Your task to perform on an android device: What's the weather? Image 0: 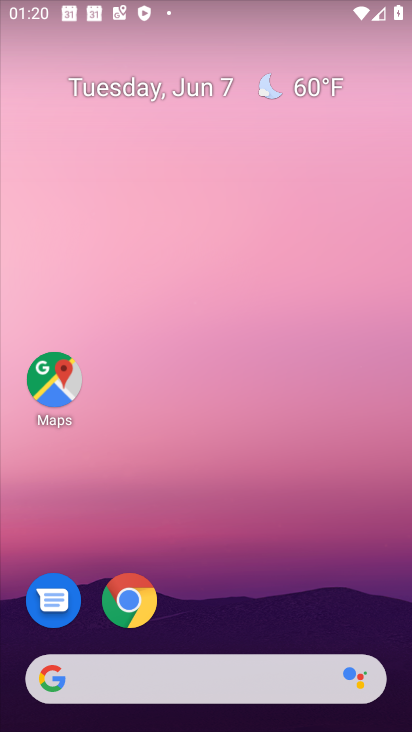
Step 0: drag from (184, 720) to (189, 260)
Your task to perform on an android device: What's the weather? Image 1: 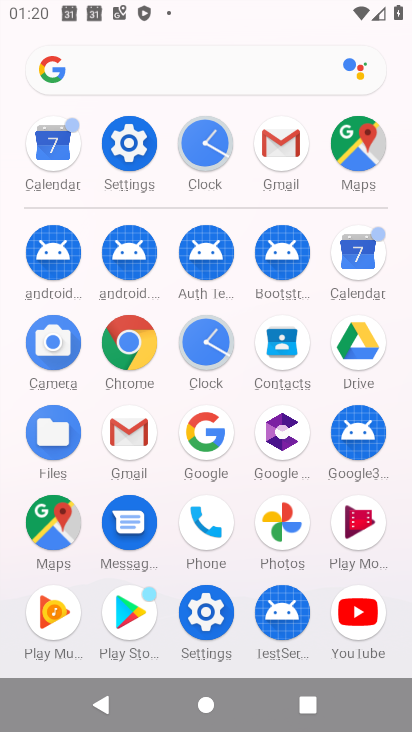
Step 1: click (212, 423)
Your task to perform on an android device: What's the weather? Image 2: 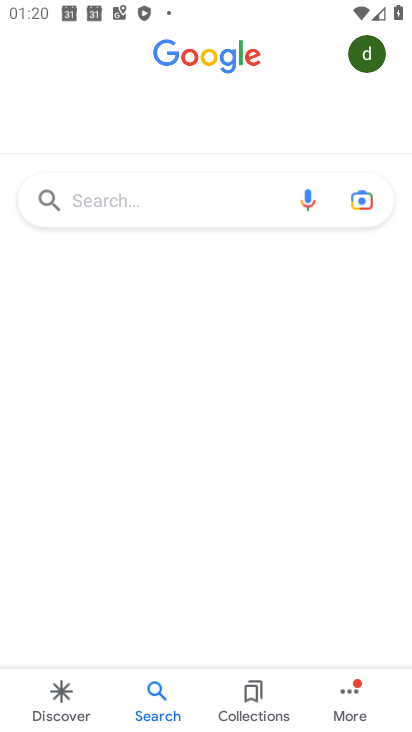
Step 2: click (167, 197)
Your task to perform on an android device: What's the weather? Image 3: 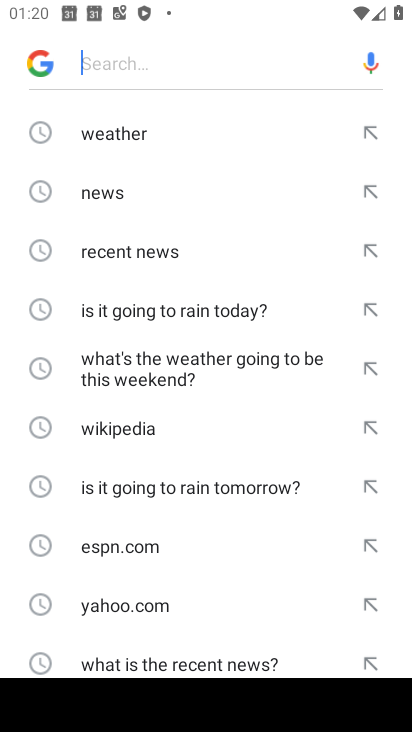
Step 3: click (115, 130)
Your task to perform on an android device: What's the weather? Image 4: 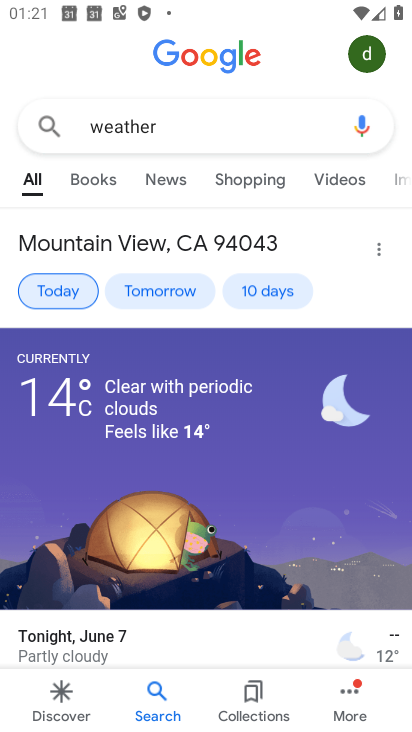
Step 4: click (62, 290)
Your task to perform on an android device: What's the weather? Image 5: 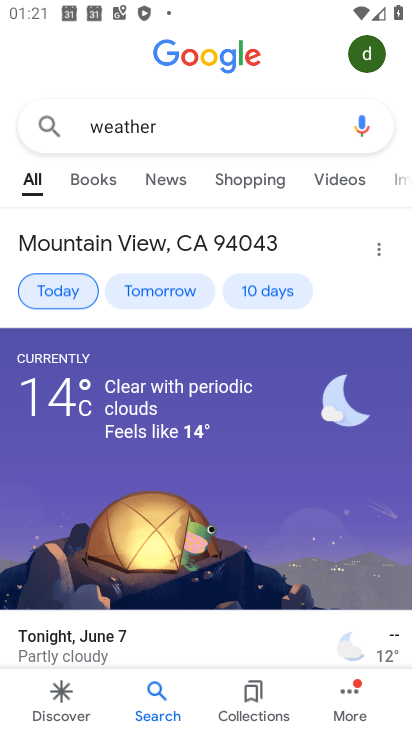
Step 5: click (62, 290)
Your task to perform on an android device: What's the weather? Image 6: 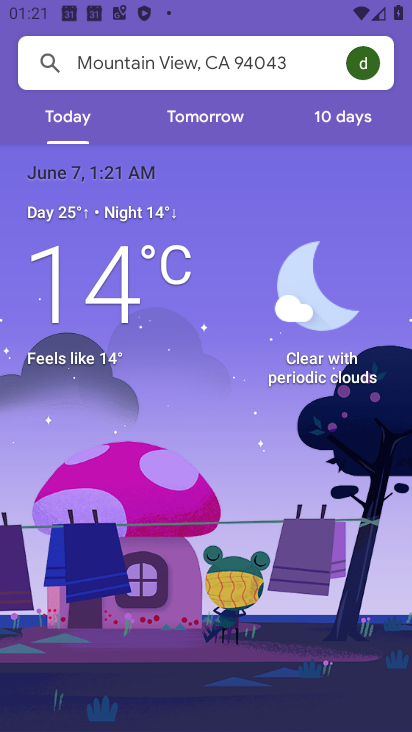
Step 6: task complete